Your task to perform on an android device: Show me some nice wallpapers for my phone Image 0: 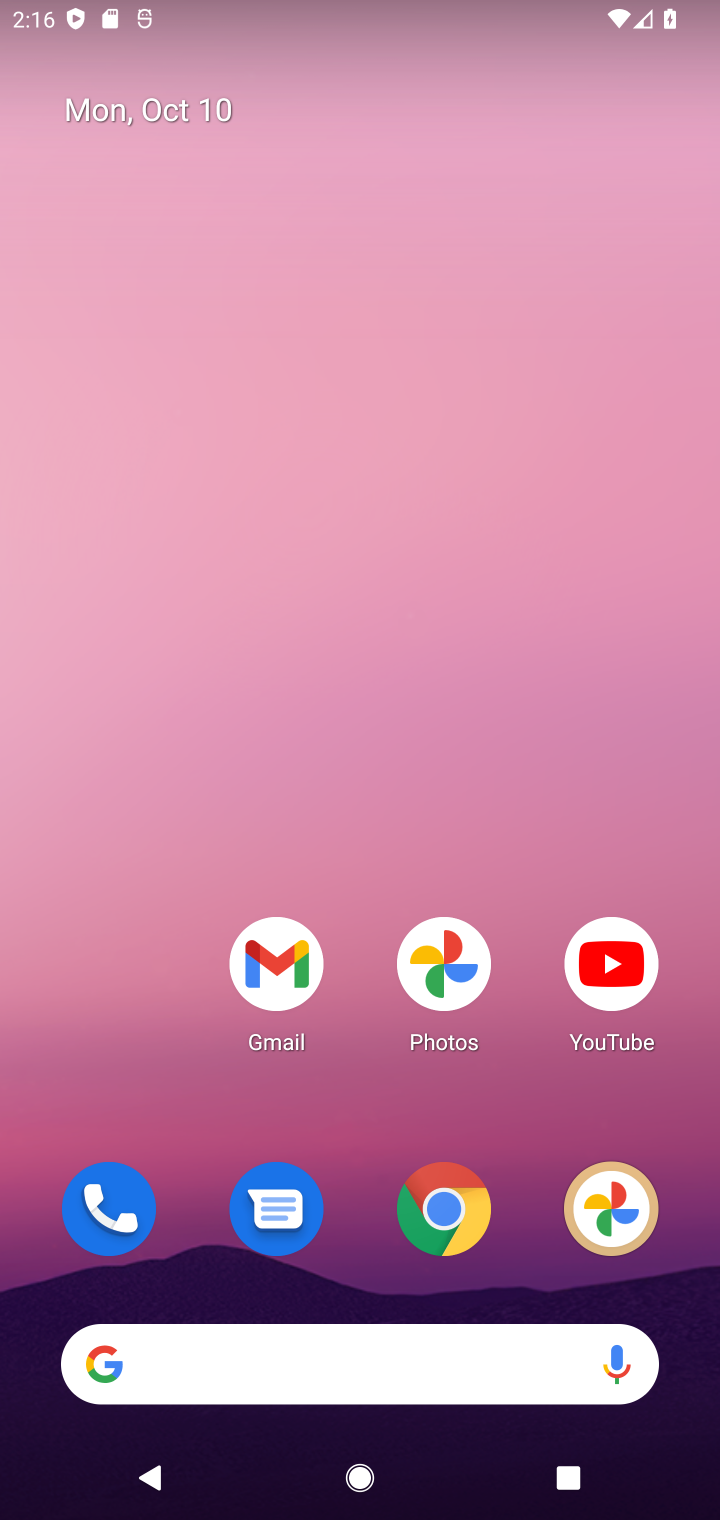
Step 0: click (445, 1224)
Your task to perform on an android device: Show me some nice wallpapers for my phone Image 1: 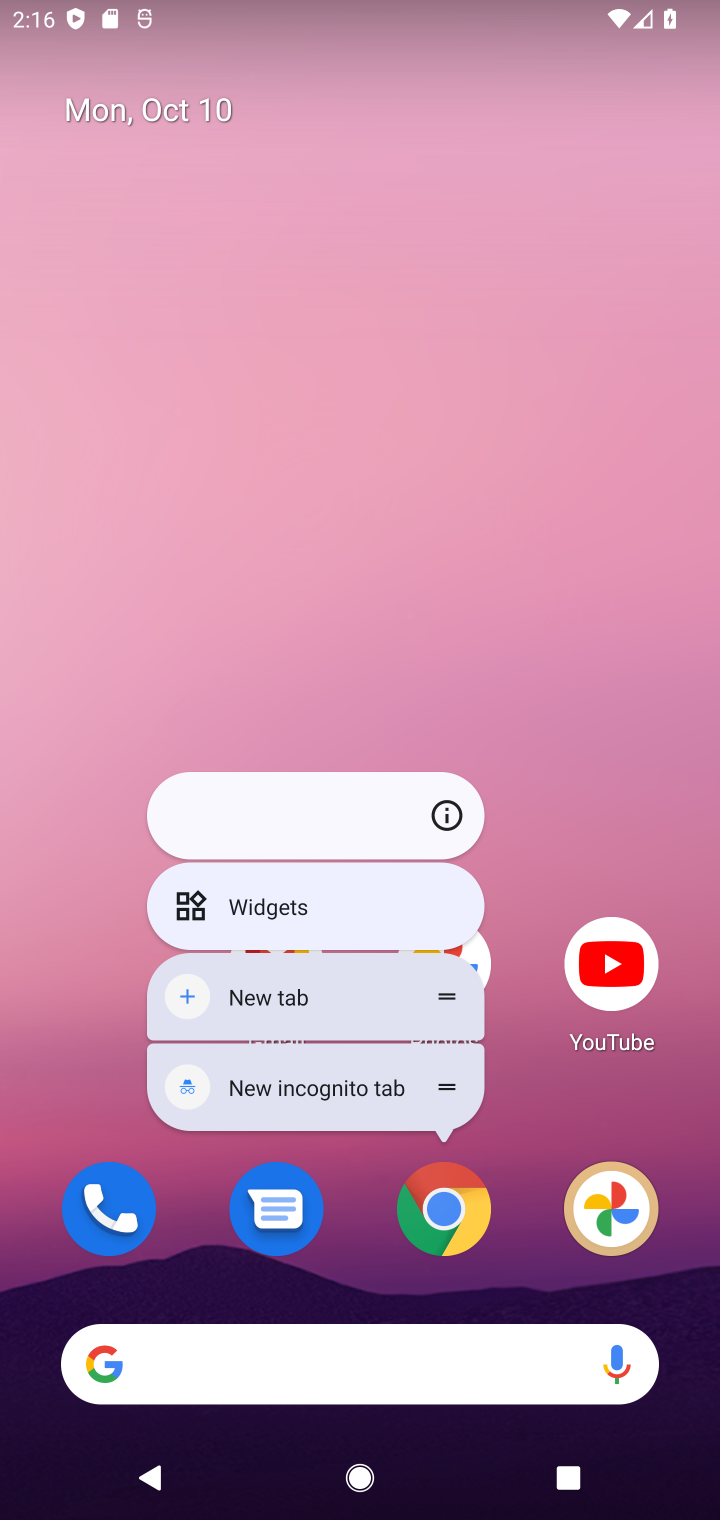
Step 1: click (402, 1263)
Your task to perform on an android device: Show me some nice wallpapers for my phone Image 2: 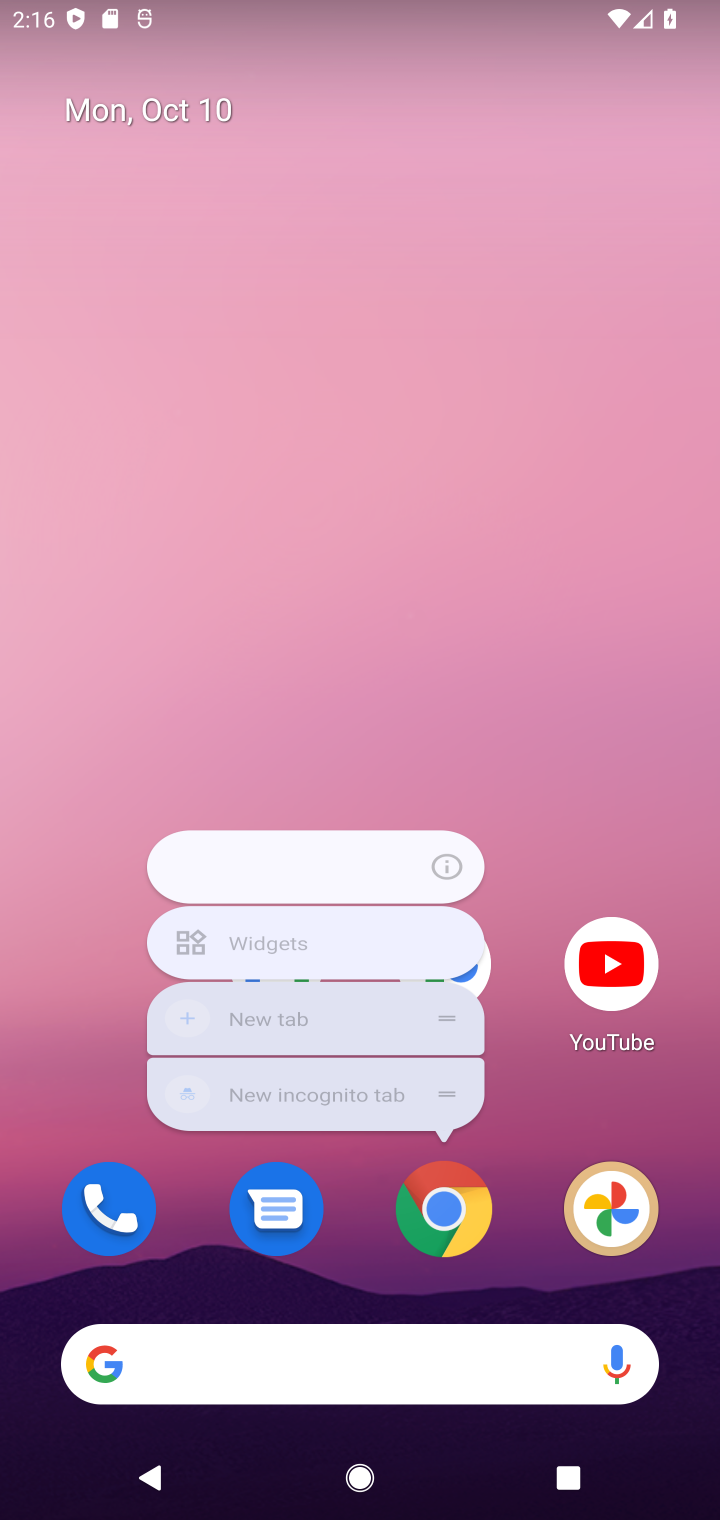
Step 2: click (455, 1222)
Your task to perform on an android device: Show me some nice wallpapers for my phone Image 3: 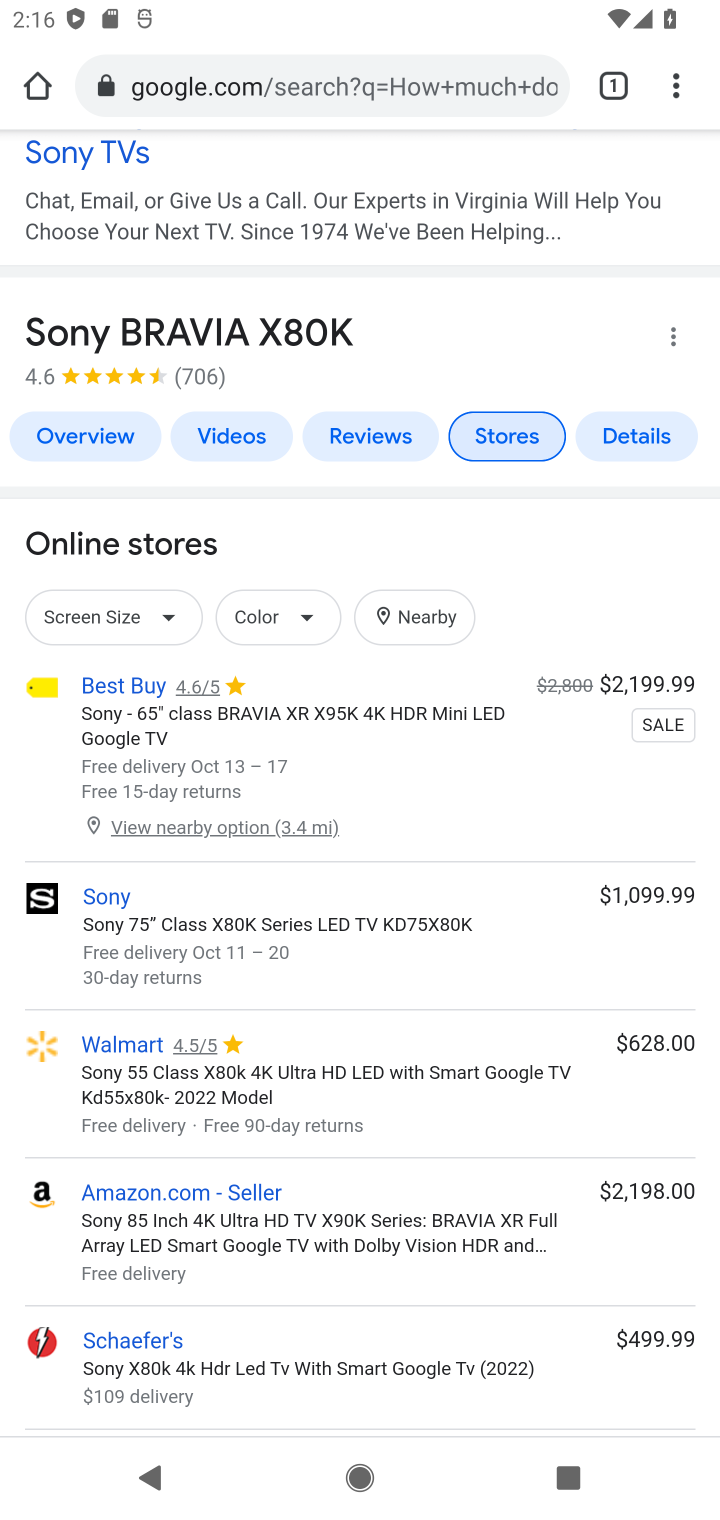
Step 3: click (301, 83)
Your task to perform on an android device: Show me some nice wallpapers for my phone Image 4: 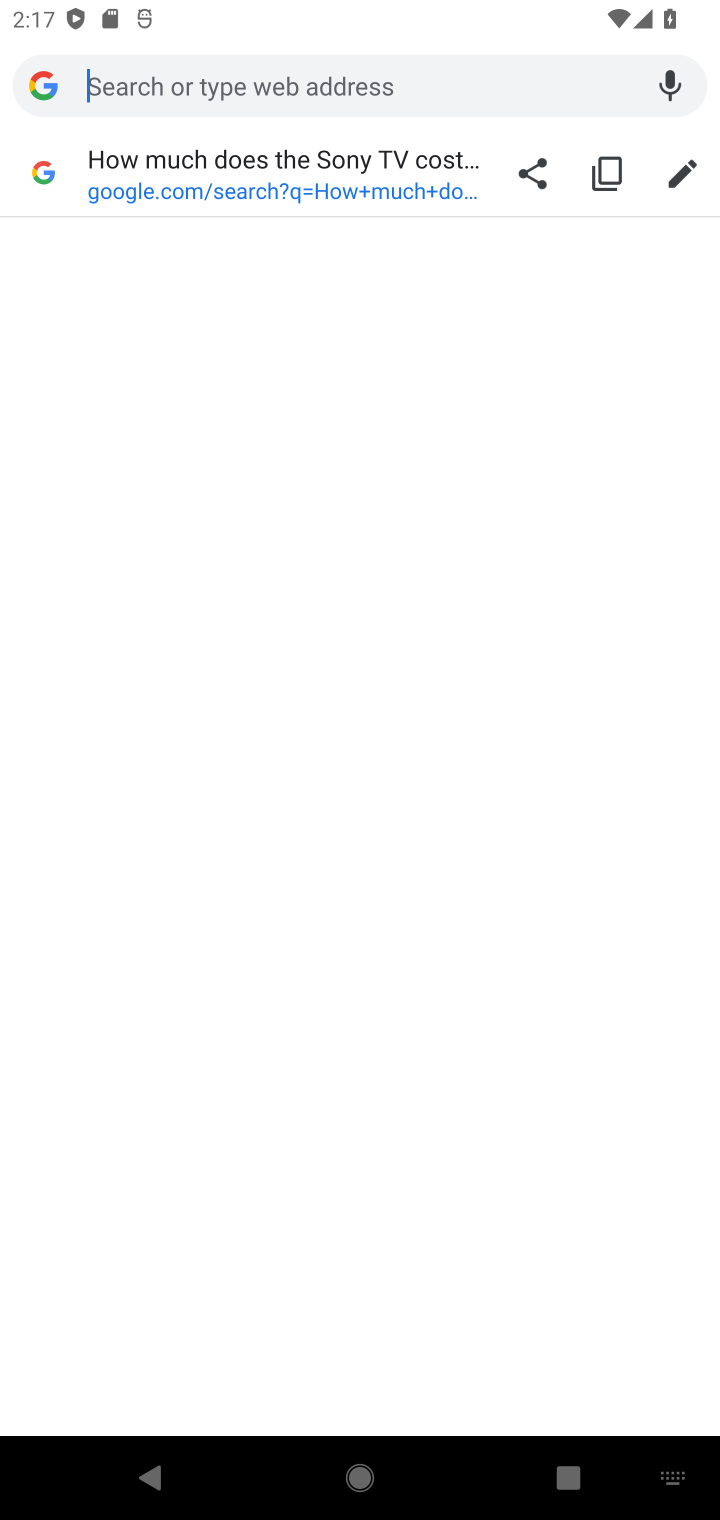
Step 4: type "Show me some nice wallpapers for my phone"
Your task to perform on an android device: Show me some nice wallpapers for my phone Image 5: 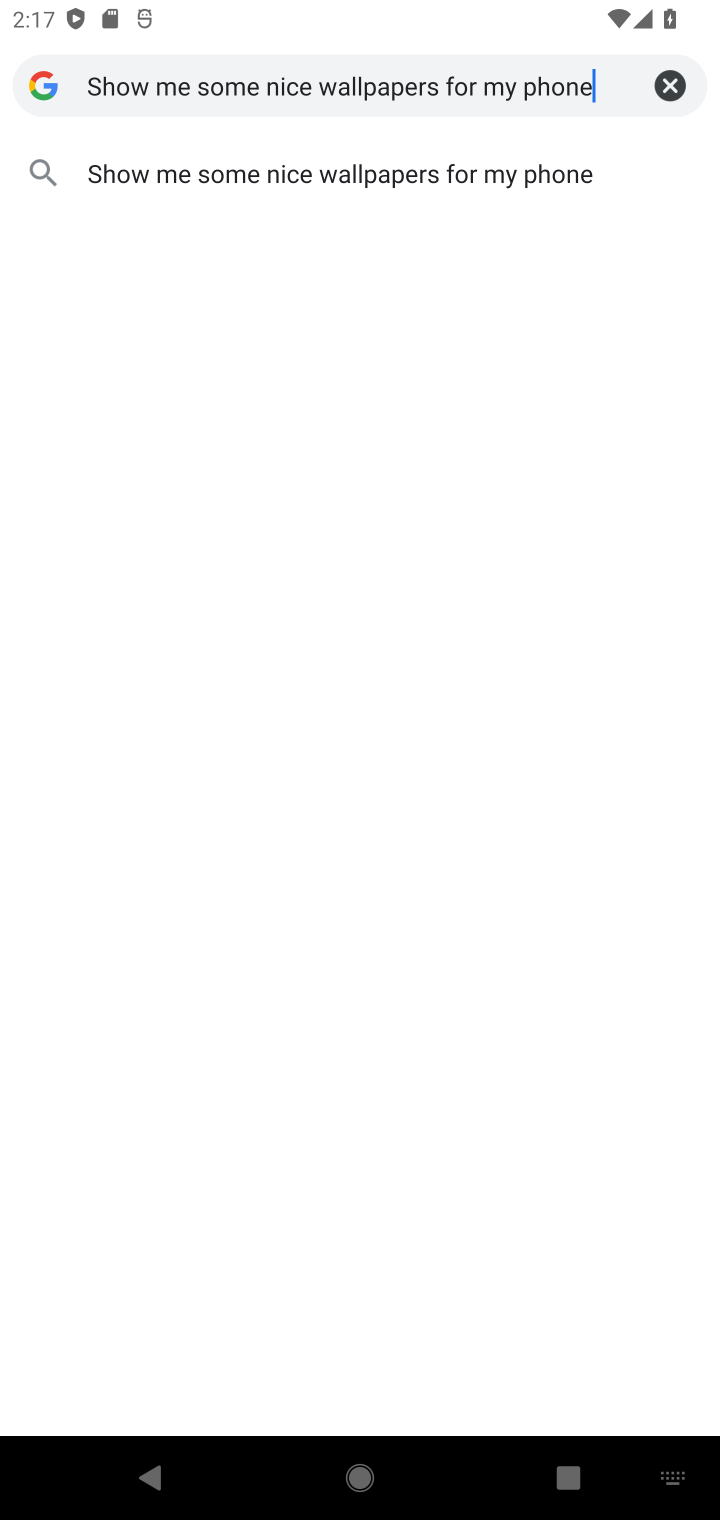
Step 5: press enter
Your task to perform on an android device: Show me some nice wallpapers for my phone Image 6: 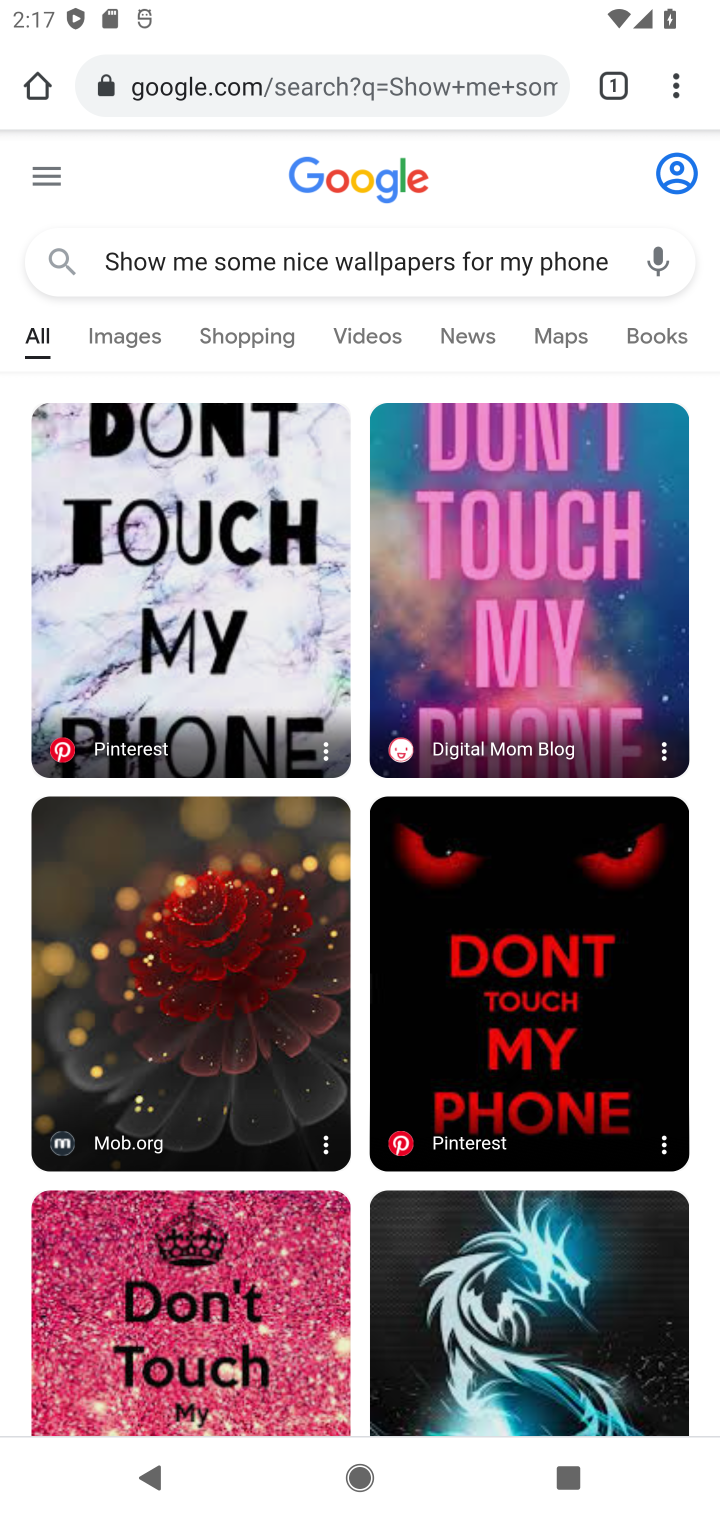
Step 6: task complete